Your task to perform on an android device: Open Wikipedia Image 0: 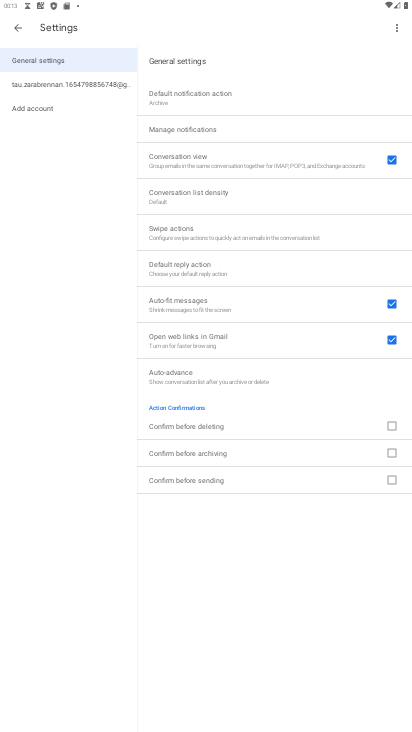
Step 0: press home button
Your task to perform on an android device: Open Wikipedia Image 1: 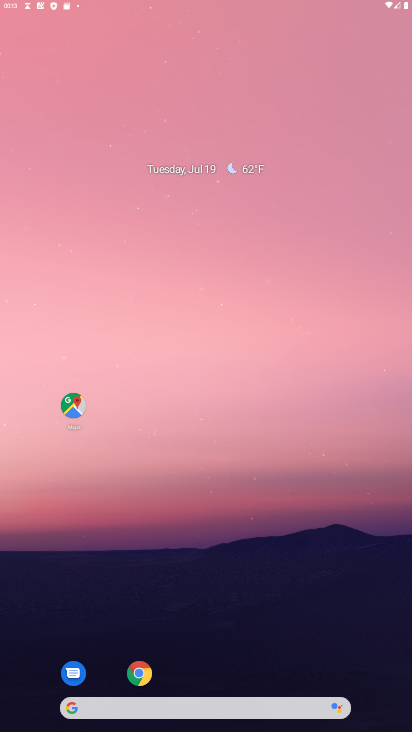
Step 1: drag from (184, 708) to (267, 272)
Your task to perform on an android device: Open Wikipedia Image 2: 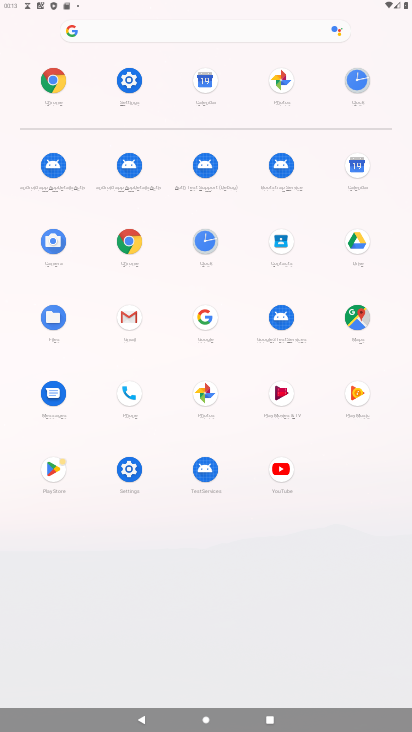
Step 2: click (132, 74)
Your task to perform on an android device: Open Wikipedia Image 3: 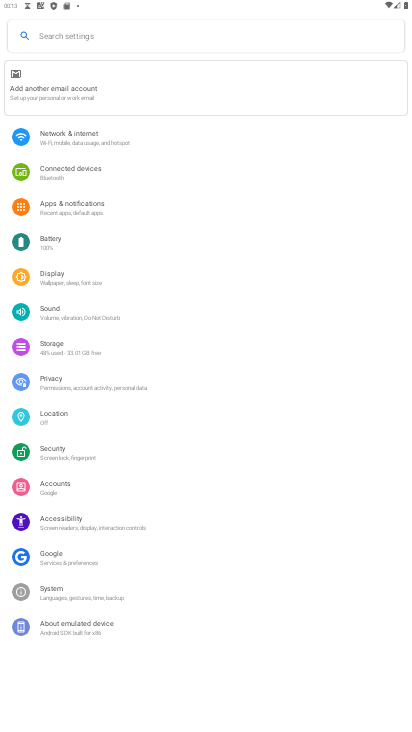
Step 3: press home button
Your task to perform on an android device: Open Wikipedia Image 4: 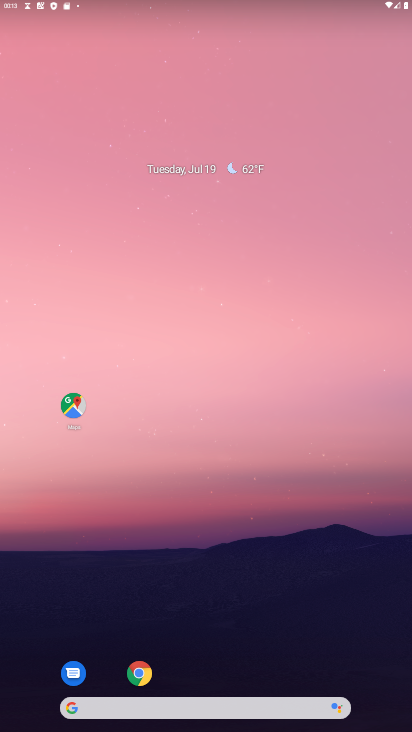
Step 4: drag from (207, 651) to (229, 277)
Your task to perform on an android device: Open Wikipedia Image 5: 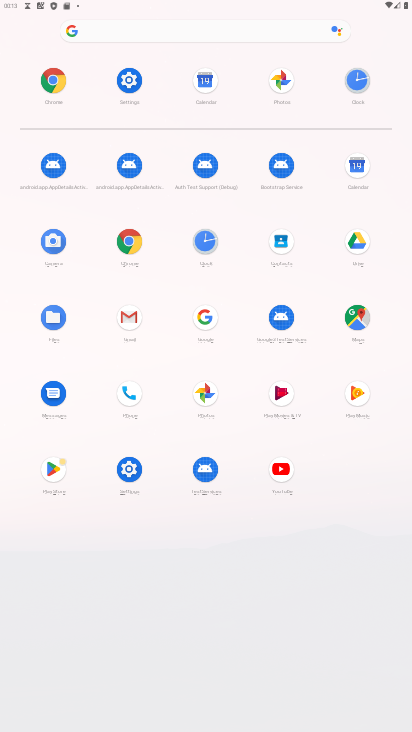
Step 5: click (133, 239)
Your task to perform on an android device: Open Wikipedia Image 6: 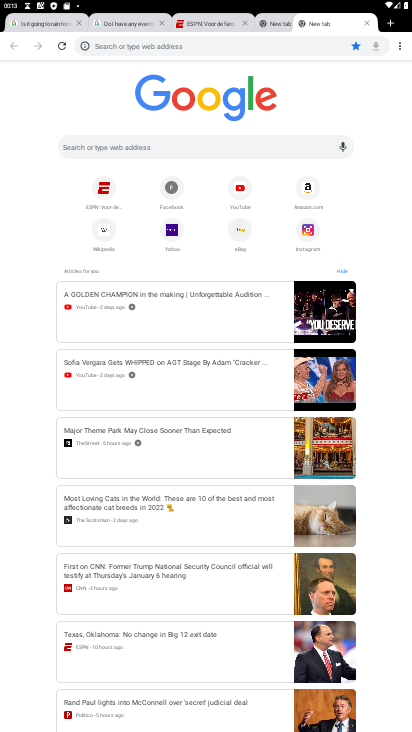
Step 6: click (97, 228)
Your task to perform on an android device: Open Wikipedia Image 7: 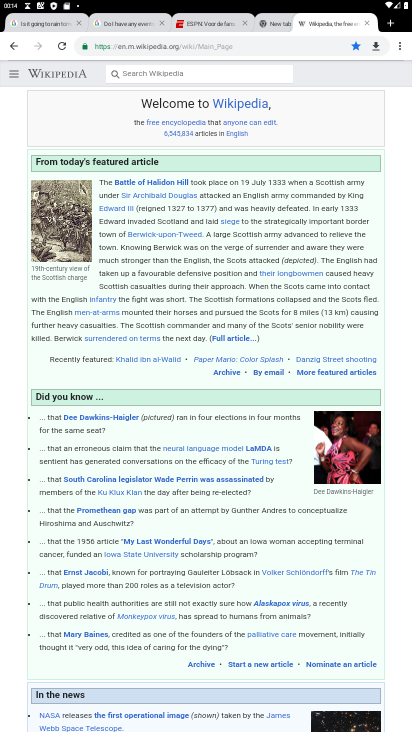
Step 7: task complete